Your task to perform on an android device: Open the map Image 0: 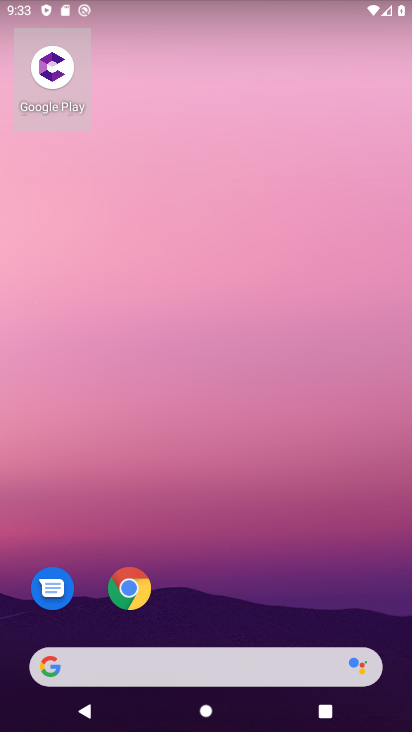
Step 0: drag from (64, 655) to (273, 219)
Your task to perform on an android device: Open the map Image 1: 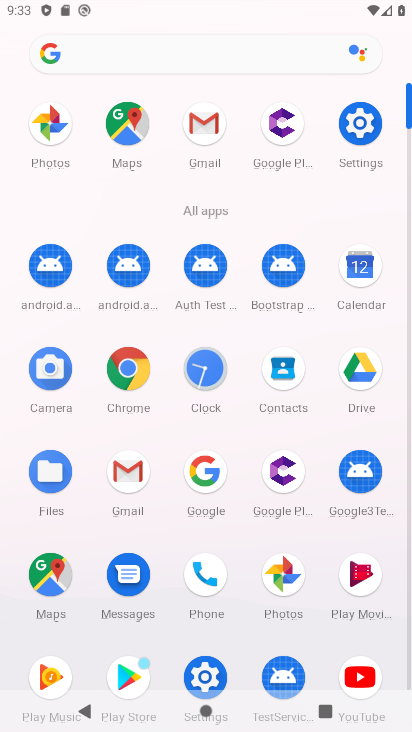
Step 1: click (50, 583)
Your task to perform on an android device: Open the map Image 2: 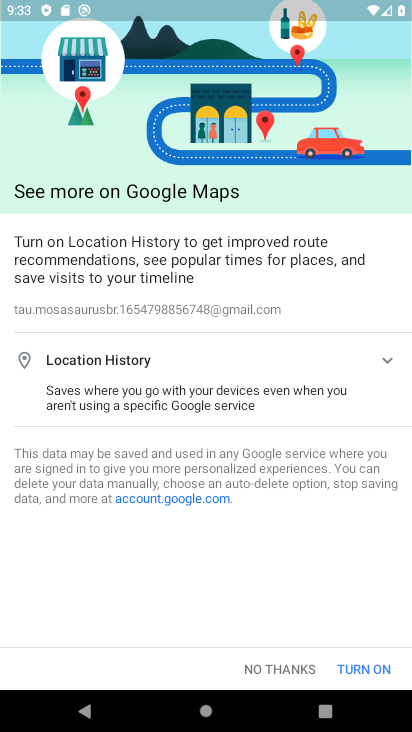
Step 2: click (289, 672)
Your task to perform on an android device: Open the map Image 3: 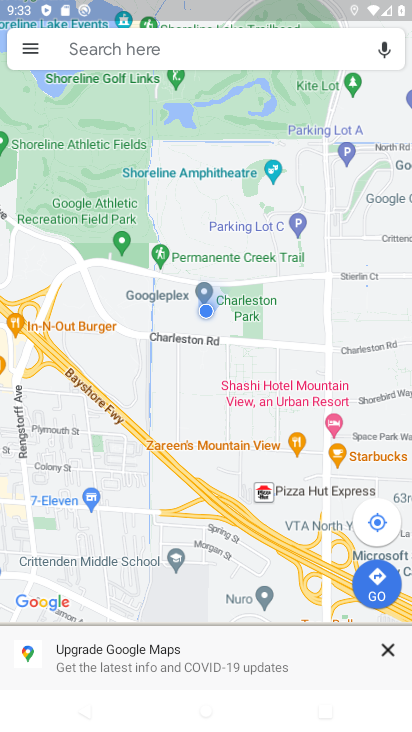
Step 3: task complete